Your task to perform on an android device: check the backup settings in the google photos Image 0: 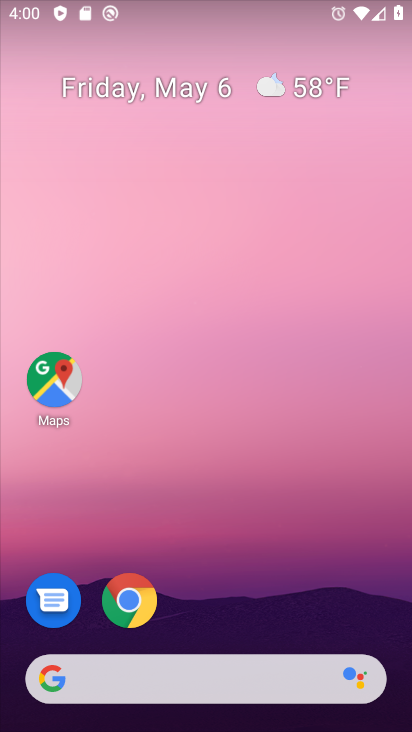
Step 0: drag from (228, 600) to (291, 60)
Your task to perform on an android device: check the backup settings in the google photos Image 1: 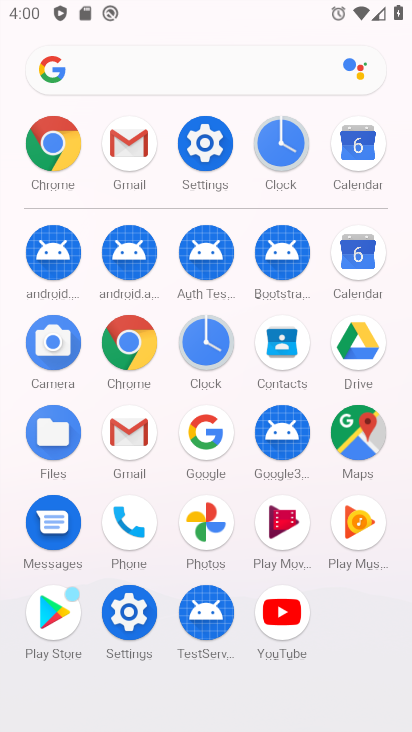
Step 1: click (208, 539)
Your task to perform on an android device: check the backup settings in the google photos Image 2: 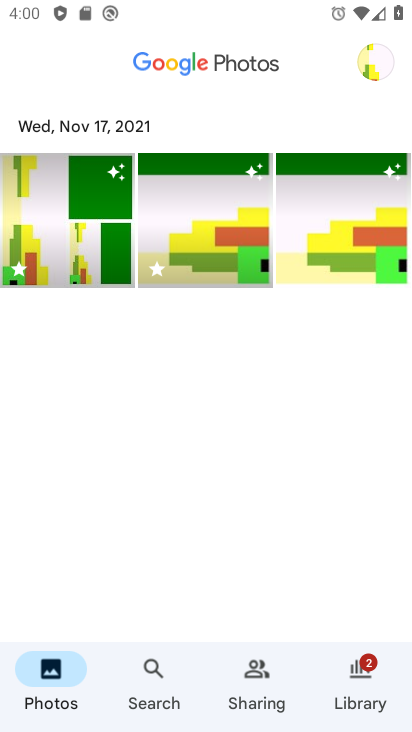
Step 2: click (377, 50)
Your task to perform on an android device: check the backup settings in the google photos Image 3: 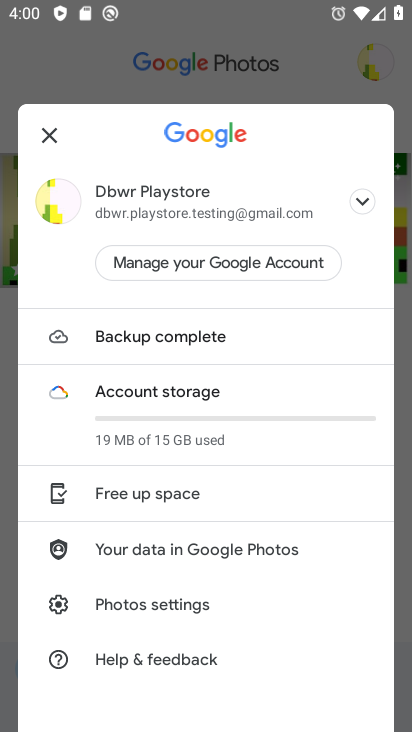
Step 3: drag from (176, 604) to (223, 463)
Your task to perform on an android device: check the backup settings in the google photos Image 4: 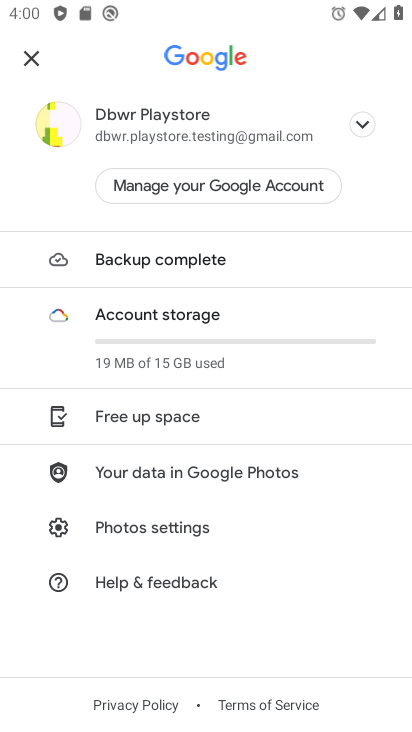
Step 4: click (176, 533)
Your task to perform on an android device: check the backup settings in the google photos Image 5: 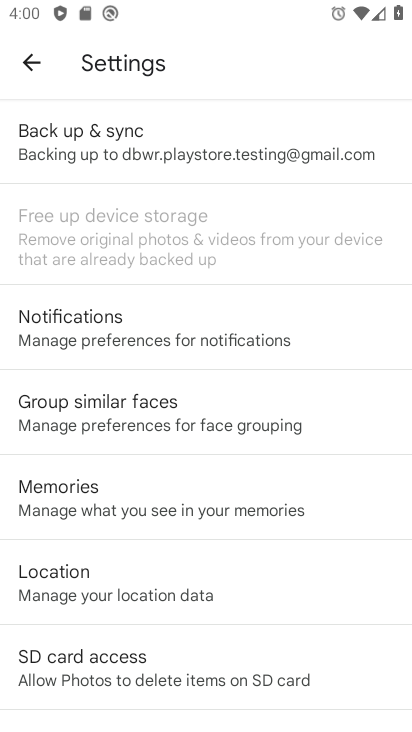
Step 5: click (203, 134)
Your task to perform on an android device: check the backup settings in the google photos Image 6: 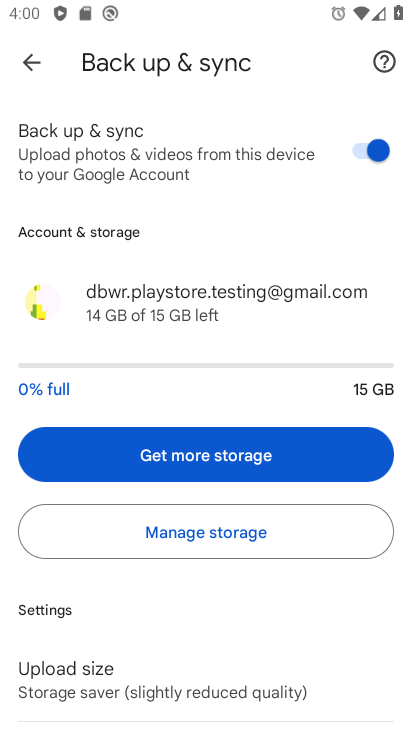
Step 6: task complete